Your task to perform on an android device: Check the weather Image 0: 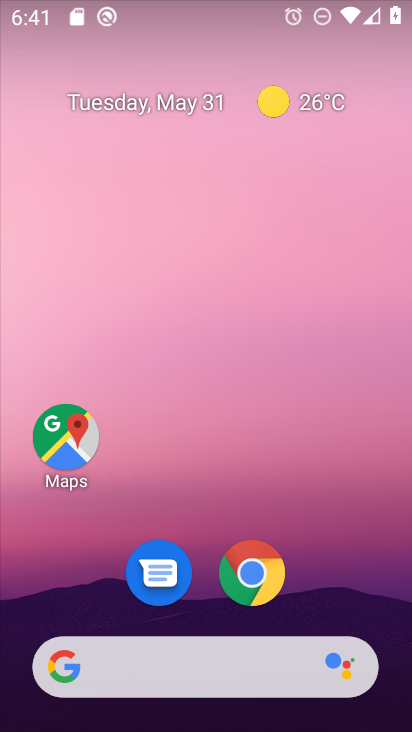
Step 0: drag from (395, 651) to (246, 47)
Your task to perform on an android device: Check the weather Image 1: 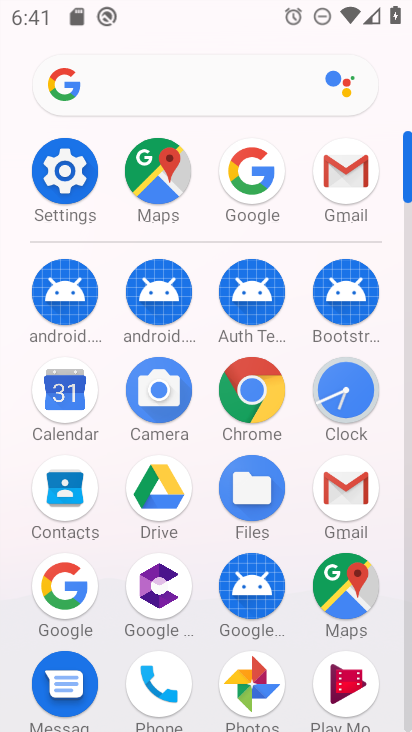
Step 1: click (54, 597)
Your task to perform on an android device: Check the weather Image 2: 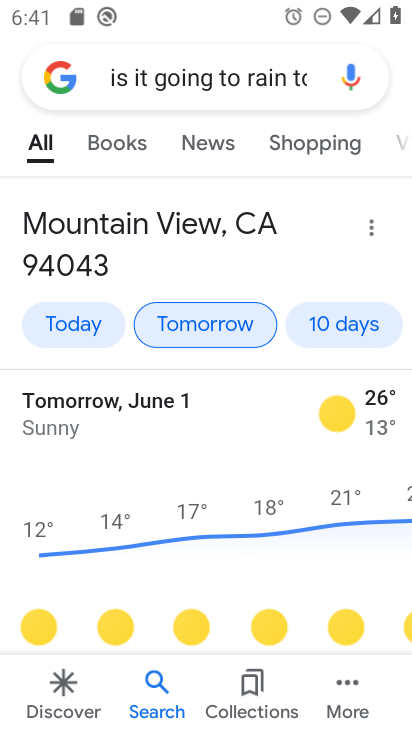
Step 2: press back button
Your task to perform on an android device: Check the weather Image 3: 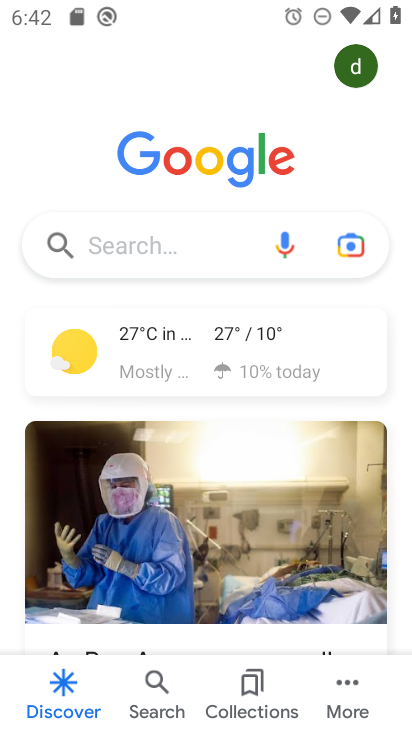
Step 3: click (131, 261)
Your task to perform on an android device: Check the weather Image 4: 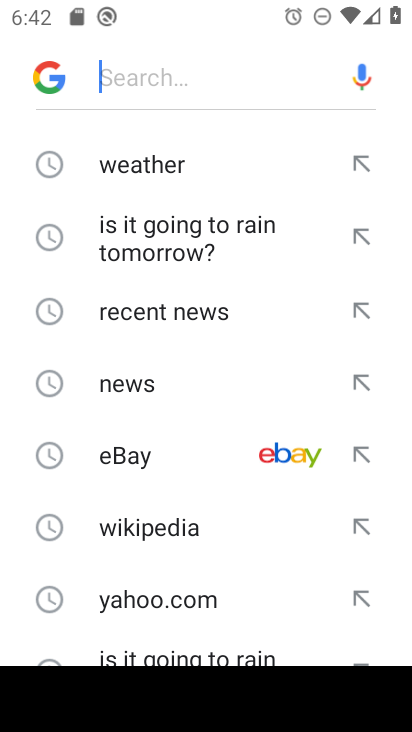
Step 4: click (227, 151)
Your task to perform on an android device: Check the weather Image 5: 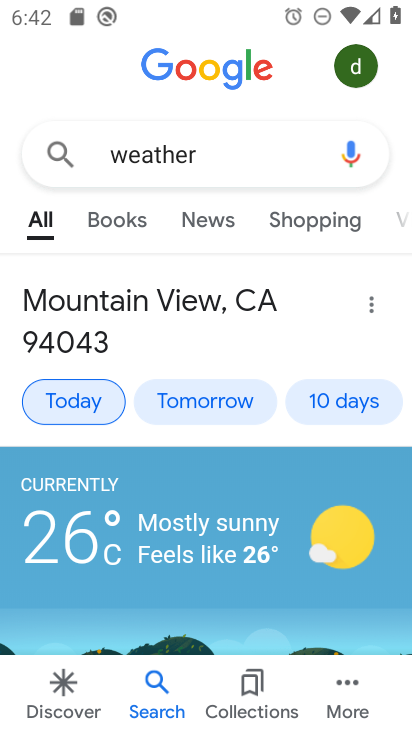
Step 5: task complete